Your task to perform on an android device: Open Google Chrome Image 0: 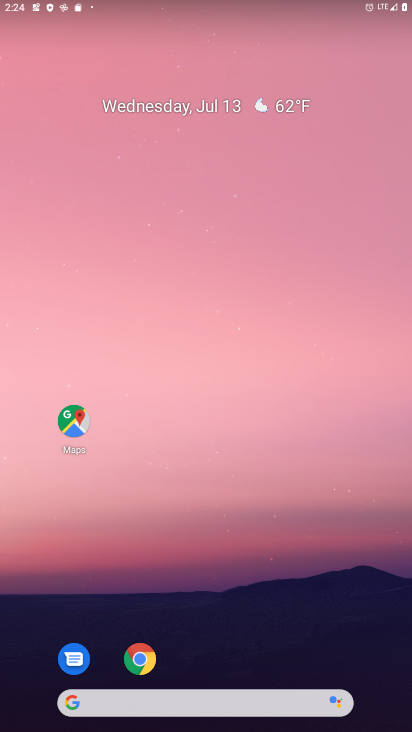
Step 0: click (139, 660)
Your task to perform on an android device: Open Google Chrome Image 1: 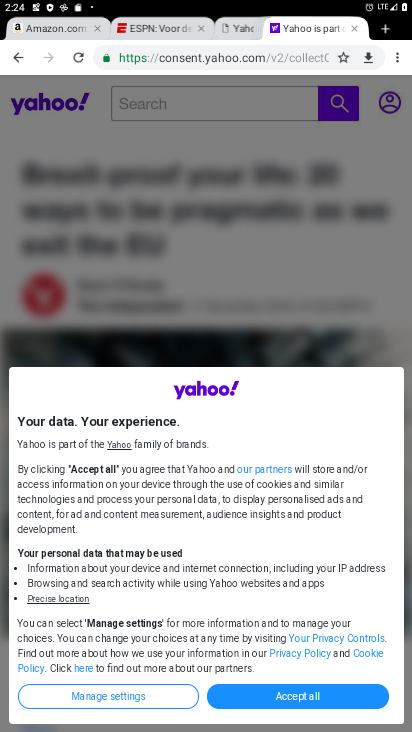
Step 1: task complete